Your task to perform on an android device: Go to Amazon Image 0: 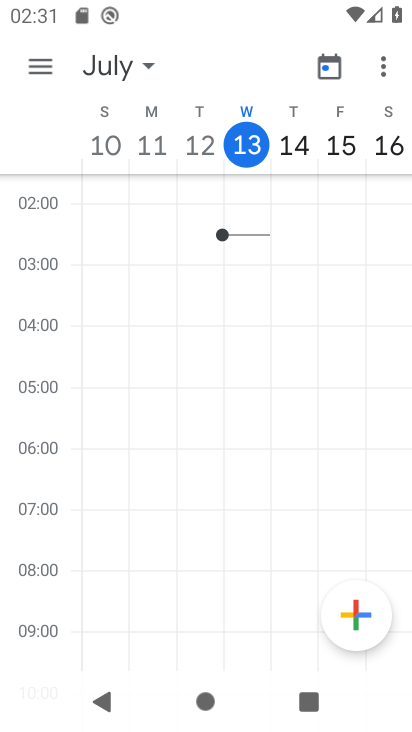
Step 0: press home button
Your task to perform on an android device: Go to Amazon Image 1: 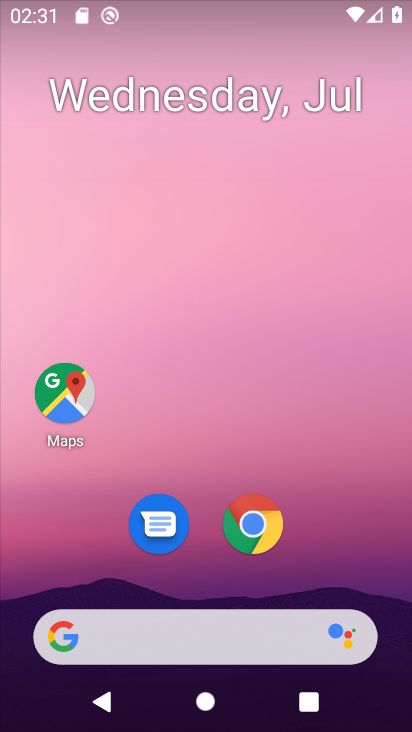
Step 1: click (266, 525)
Your task to perform on an android device: Go to Amazon Image 2: 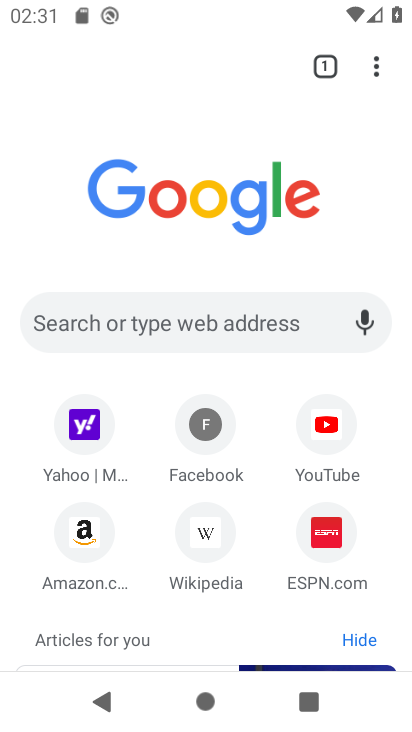
Step 2: click (92, 518)
Your task to perform on an android device: Go to Amazon Image 3: 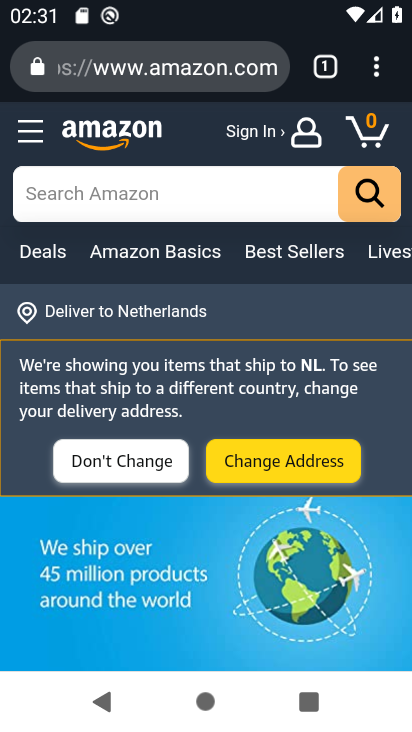
Step 3: task complete